Your task to perform on an android device: Search for the best deal on a 3d printer on aliexpress Image 0: 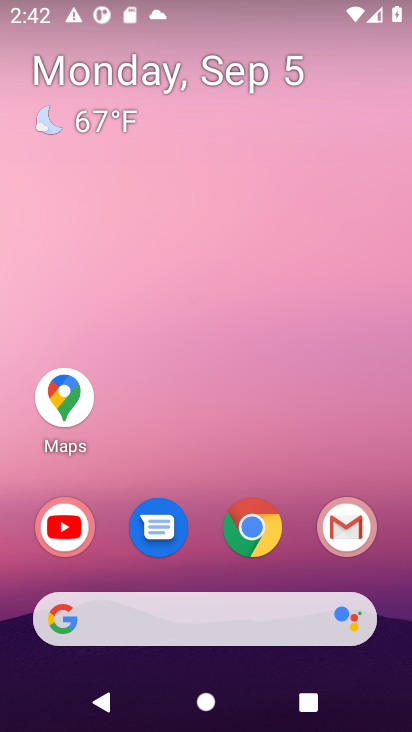
Step 0: click (260, 519)
Your task to perform on an android device: Search for the best deal on a 3d printer on aliexpress Image 1: 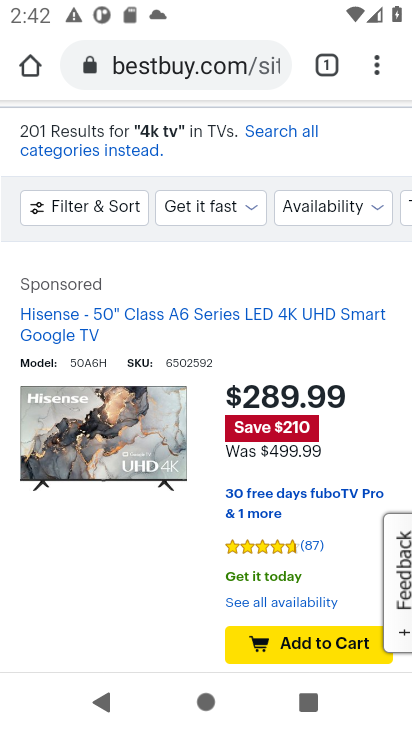
Step 1: click (209, 64)
Your task to perform on an android device: Search for the best deal on a 3d printer on aliexpress Image 2: 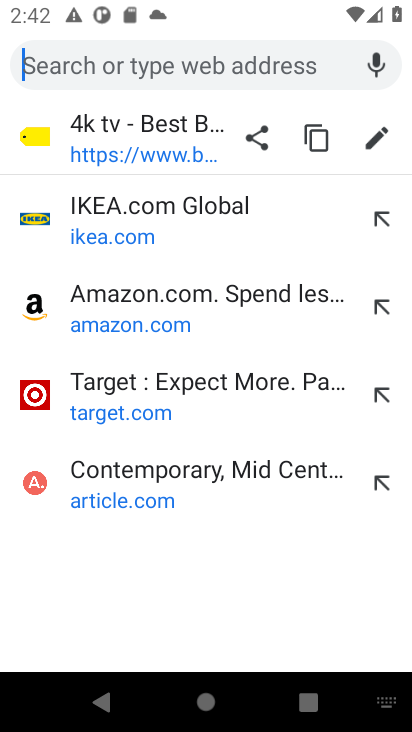
Step 2: type "AliExpress"
Your task to perform on an android device: Search for the best deal on a 3d printer on aliexpress Image 3: 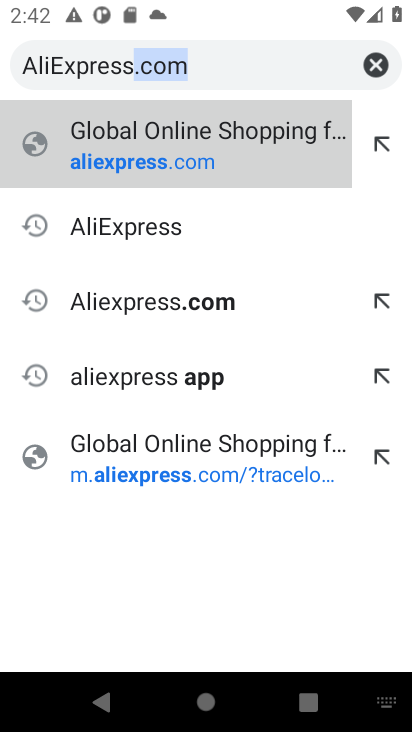
Step 3: click (164, 119)
Your task to perform on an android device: Search for the best deal on a 3d printer on aliexpress Image 4: 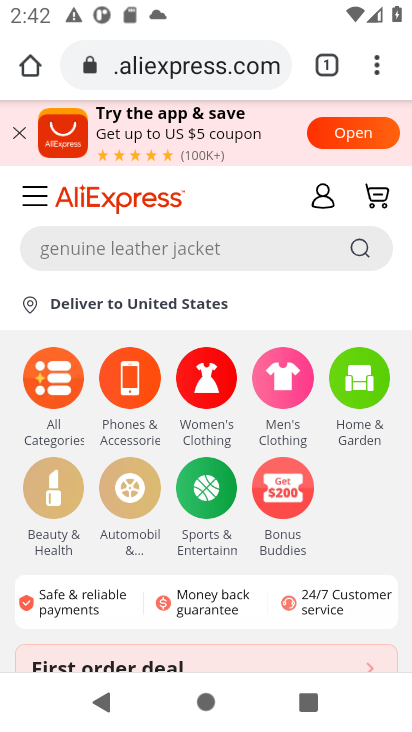
Step 4: click (235, 245)
Your task to perform on an android device: Search for the best deal on a 3d printer on aliexpress Image 5: 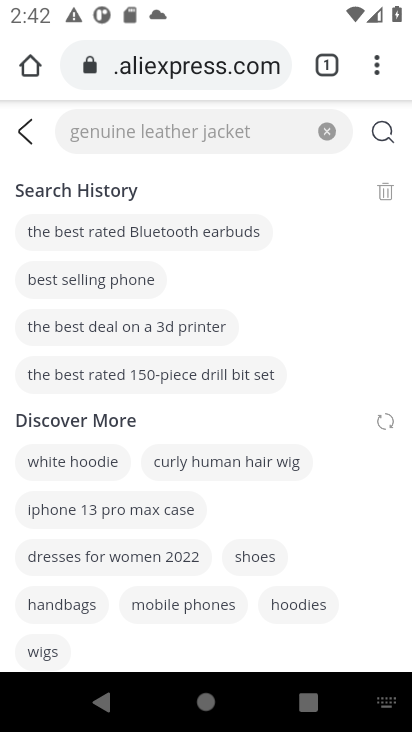
Step 5: type "3d printer "
Your task to perform on an android device: Search for the best deal on a 3d printer on aliexpress Image 6: 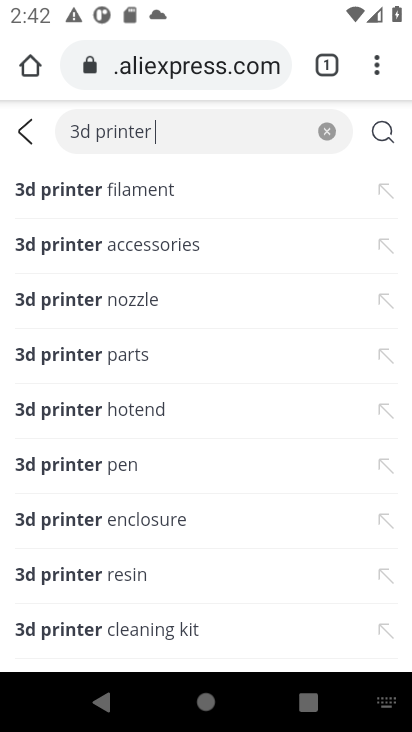
Step 6: click (391, 129)
Your task to perform on an android device: Search for the best deal on a 3d printer on aliexpress Image 7: 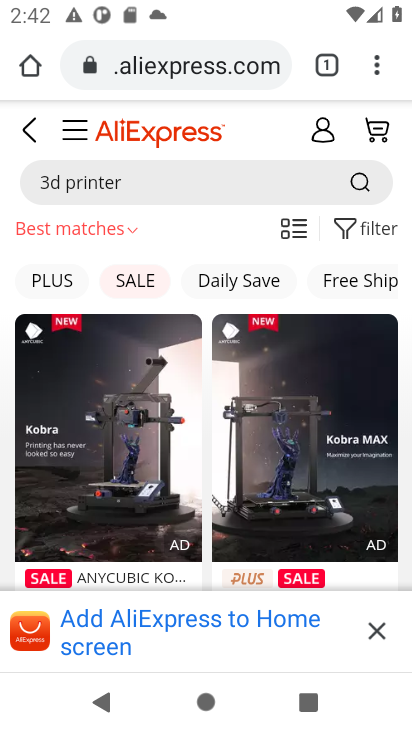
Step 7: task complete